Your task to perform on an android device: clear history in the chrome app Image 0: 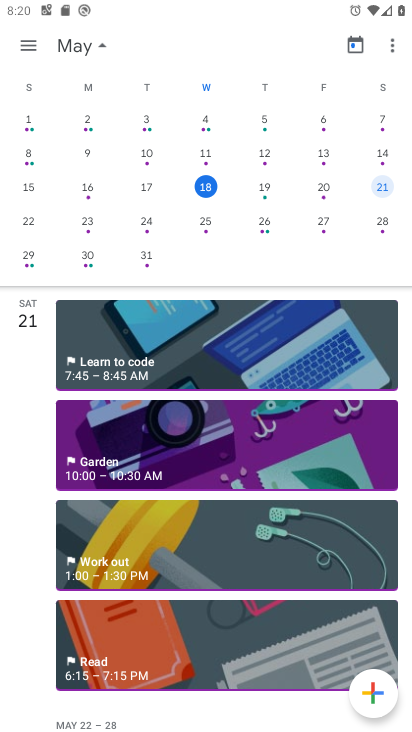
Step 0: press home button
Your task to perform on an android device: clear history in the chrome app Image 1: 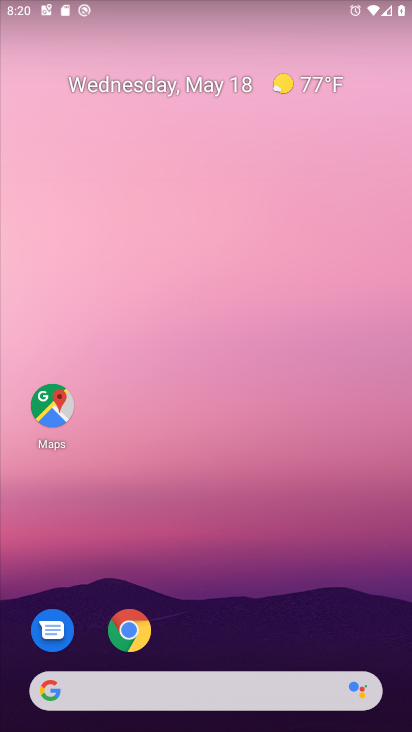
Step 1: click (125, 645)
Your task to perform on an android device: clear history in the chrome app Image 2: 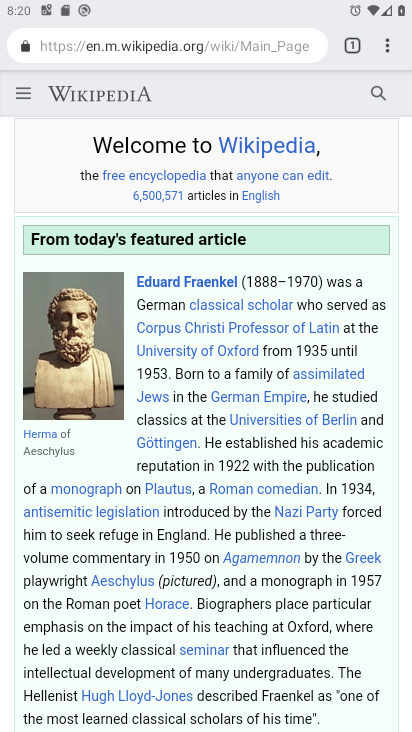
Step 2: drag from (406, 49) to (262, 261)
Your task to perform on an android device: clear history in the chrome app Image 3: 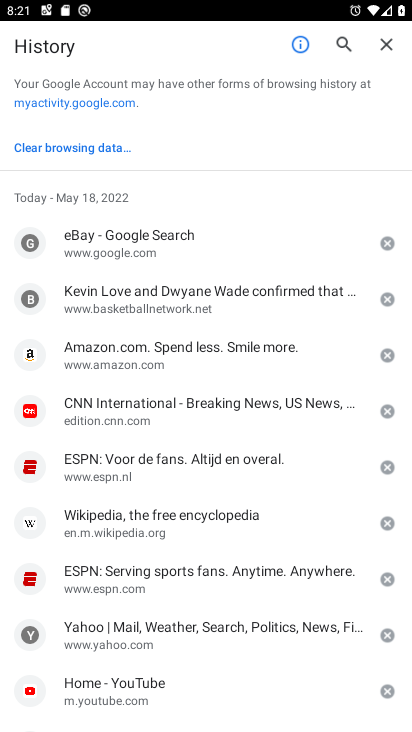
Step 3: click (105, 147)
Your task to perform on an android device: clear history in the chrome app Image 4: 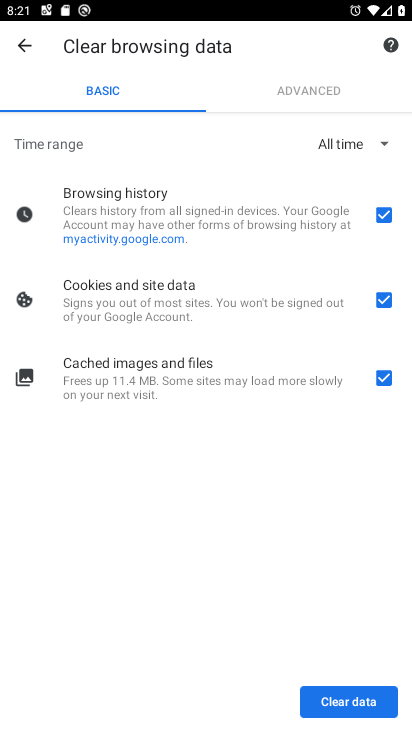
Step 4: click (393, 299)
Your task to perform on an android device: clear history in the chrome app Image 5: 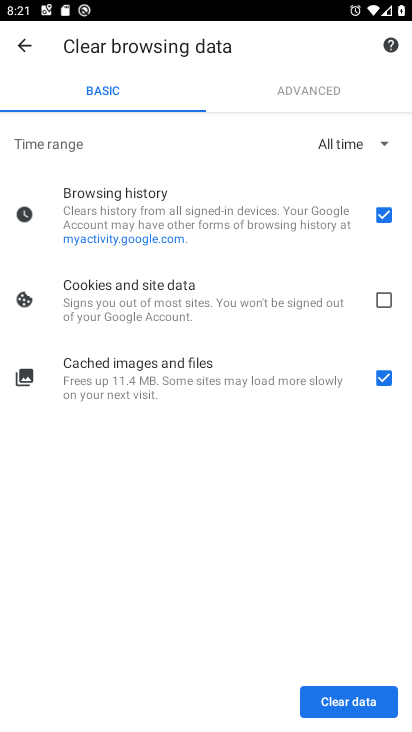
Step 5: click (385, 381)
Your task to perform on an android device: clear history in the chrome app Image 6: 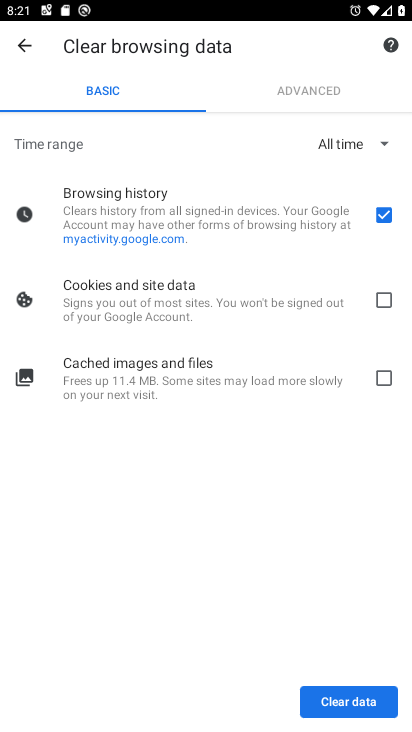
Step 6: click (356, 716)
Your task to perform on an android device: clear history in the chrome app Image 7: 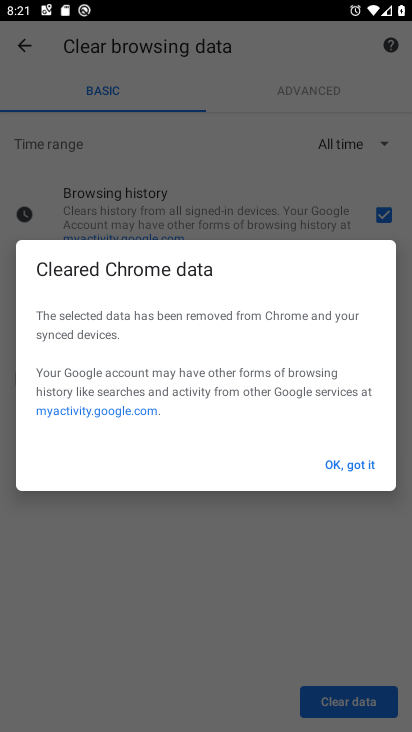
Step 7: click (356, 472)
Your task to perform on an android device: clear history in the chrome app Image 8: 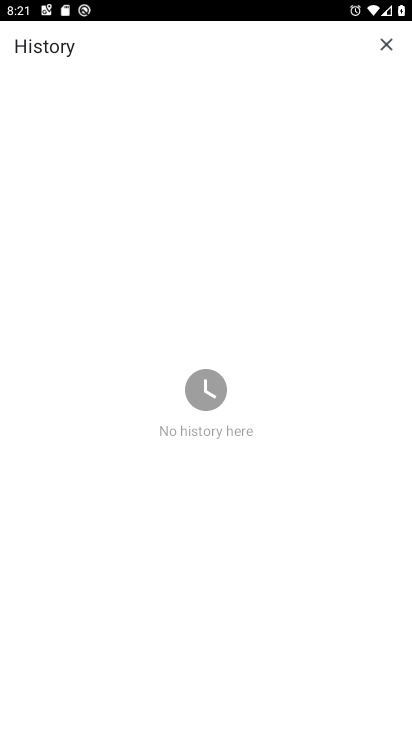
Step 8: task complete